Your task to perform on an android device: open the mobile data screen to see how much data has been used Image 0: 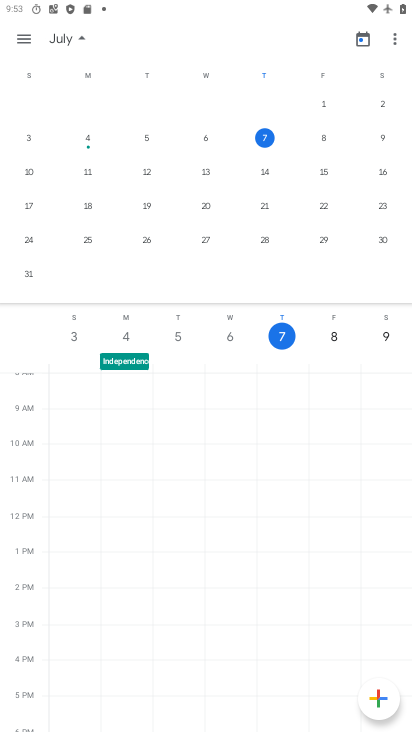
Step 0: press home button
Your task to perform on an android device: open the mobile data screen to see how much data has been used Image 1: 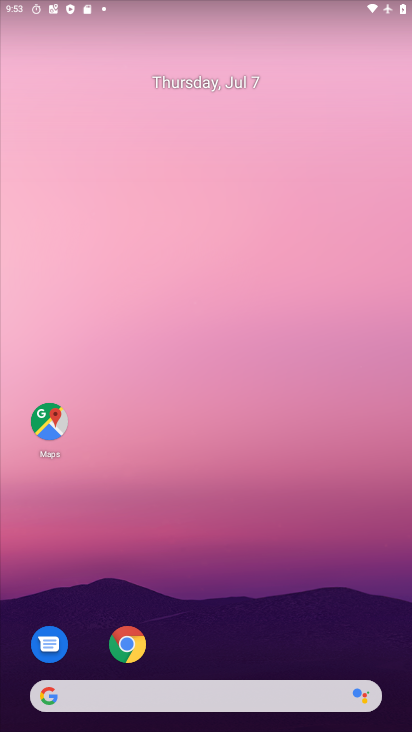
Step 1: drag from (258, 606) to (237, 195)
Your task to perform on an android device: open the mobile data screen to see how much data has been used Image 2: 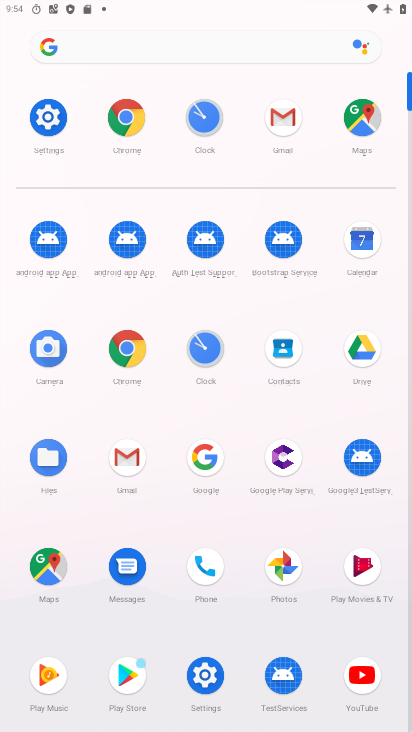
Step 2: click (45, 110)
Your task to perform on an android device: open the mobile data screen to see how much data has been used Image 3: 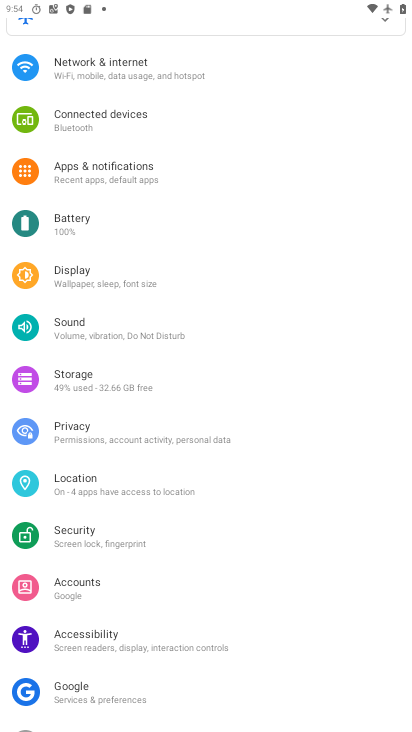
Step 3: drag from (195, 110) to (177, 538)
Your task to perform on an android device: open the mobile data screen to see how much data has been used Image 4: 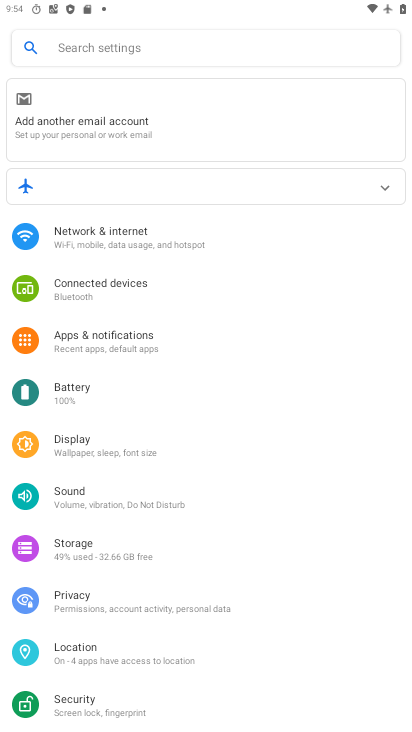
Step 4: click (116, 232)
Your task to perform on an android device: open the mobile data screen to see how much data has been used Image 5: 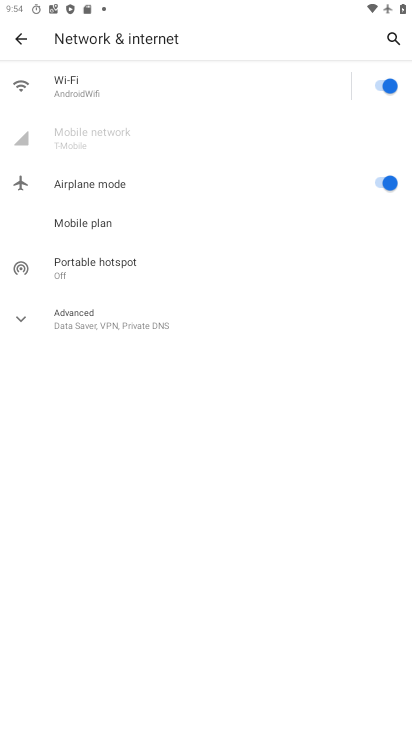
Step 5: click (97, 137)
Your task to perform on an android device: open the mobile data screen to see how much data has been used Image 6: 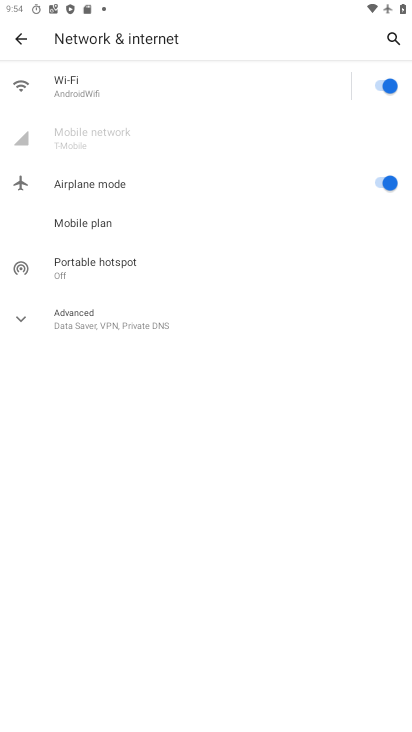
Step 6: click (97, 137)
Your task to perform on an android device: open the mobile data screen to see how much data has been used Image 7: 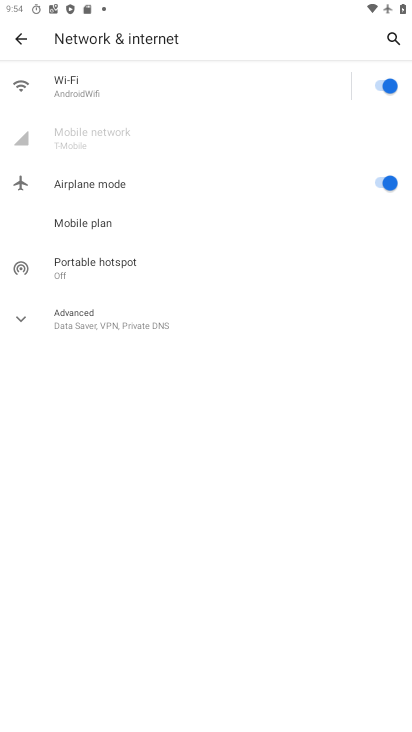
Step 7: click (97, 137)
Your task to perform on an android device: open the mobile data screen to see how much data has been used Image 8: 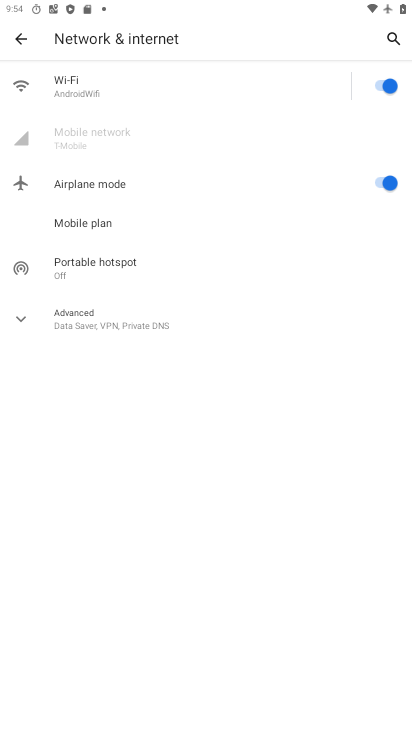
Step 8: click (97, 137)
Your task to perform on an android device: open the mobile data screen to see how much data has been used Image 9: 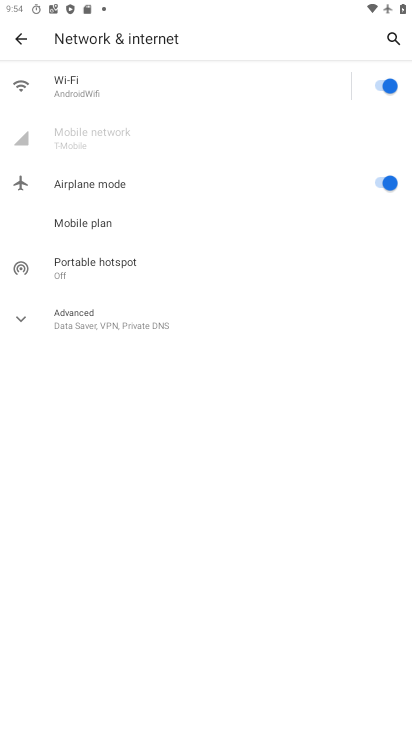
Step 9: task complete